Your task to perform on an android device: Show me productivity apps on the Play Store Image 0: 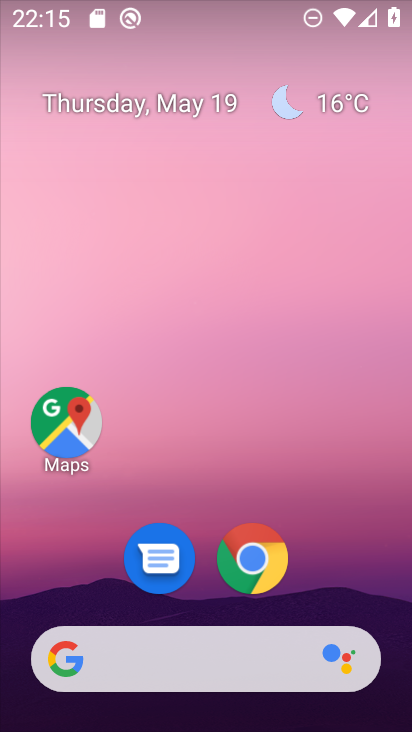
Step 0: drag from (192, 729) to (184, 154)
Your task to perform on an android device: Show me productivity apps on the Play Store Image 1: 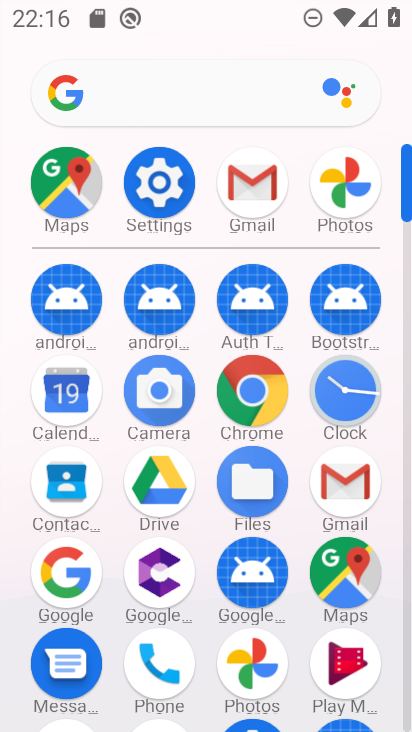
Step 1: drag from (216, 668) to (213, 363)
Your task to perform on an android device: Show me productivity apps on the Play Store Image 2: 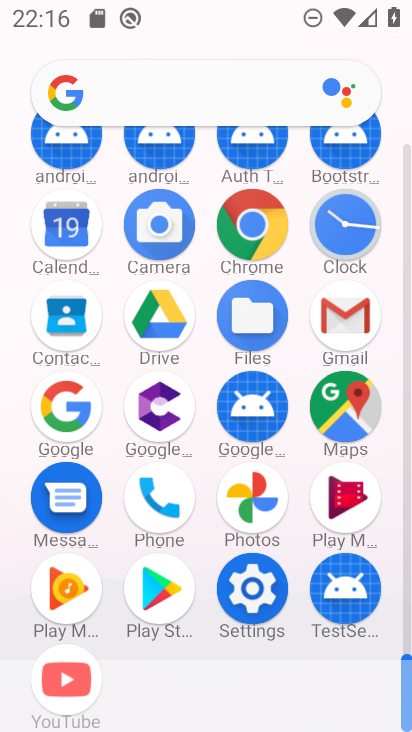
Step 2: click (154, 595)
Your task to perform on an android device: Show me productivity apps on the Play Store Image 3: 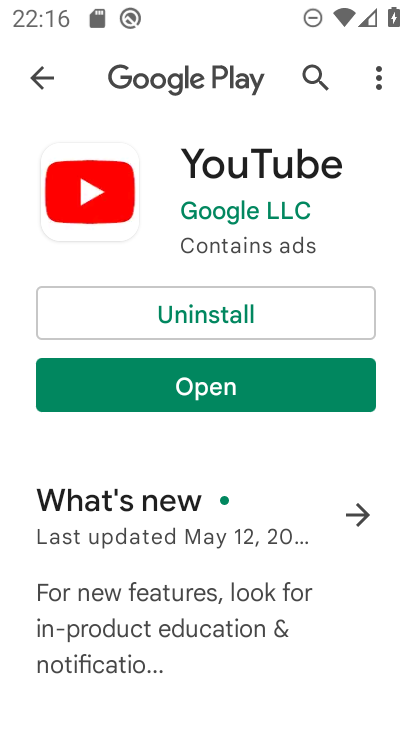
Step 3: click (40, 78)
Your task to perform on an android device: Show me productivity apps on the Play Store Image 4: 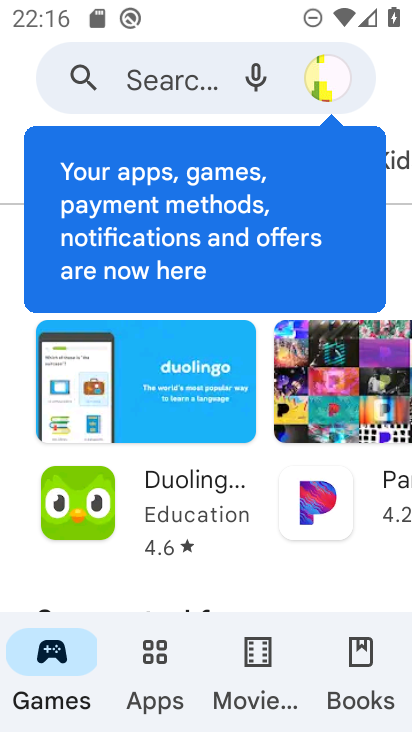
Step 4: click (151, 653)
Your task to perform on an android device: Show me productivity apps on the Play Store Image 5: 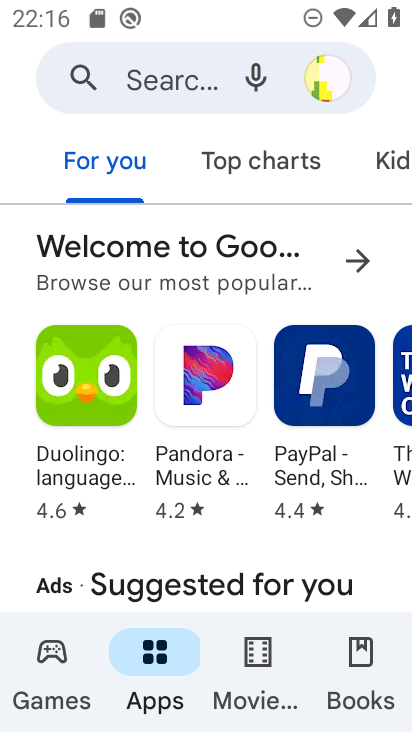
Step 5: drag from (320, 163) to (144, 154)
Your task to perform on an android device: Show me productivity apps on the Play Store Image 6: 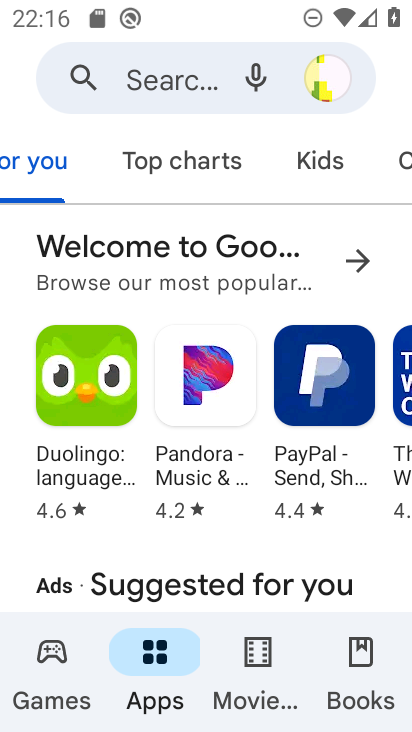
Step 6: drag from (363, 167) to (173, 157)
Your task to perform on an android device: Show me productivity apps on the Play Store Image 7: 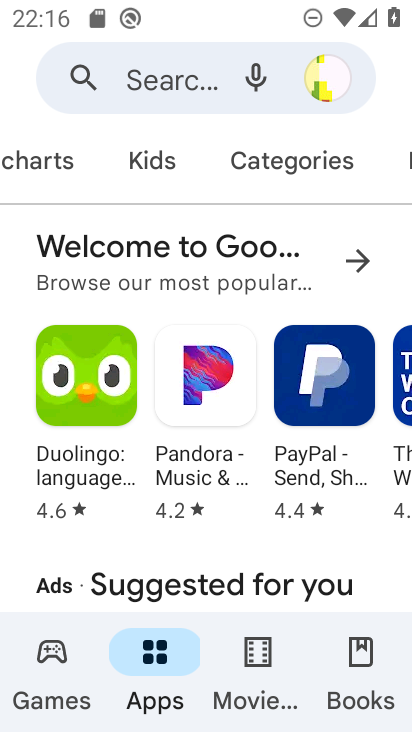
Step 7: click (304, 159)
Your task to perform on an android device: Show me productivity apps on the Play Store Image 8: 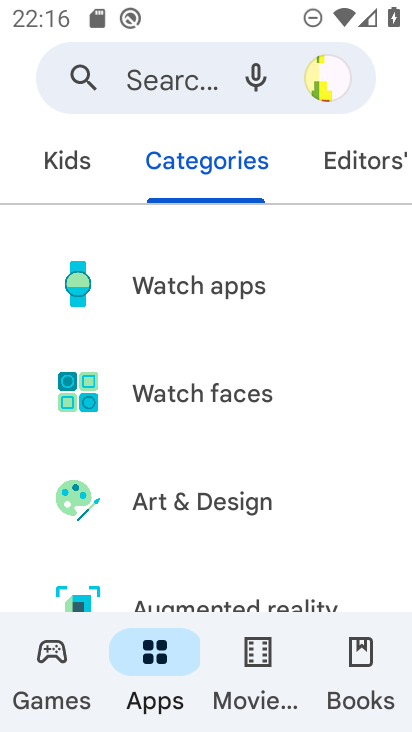
Step 8: drag from (249, 571) to (242, 253)
Your task to perform on an android device: Show me productivity apps on the Play Store Image 9: 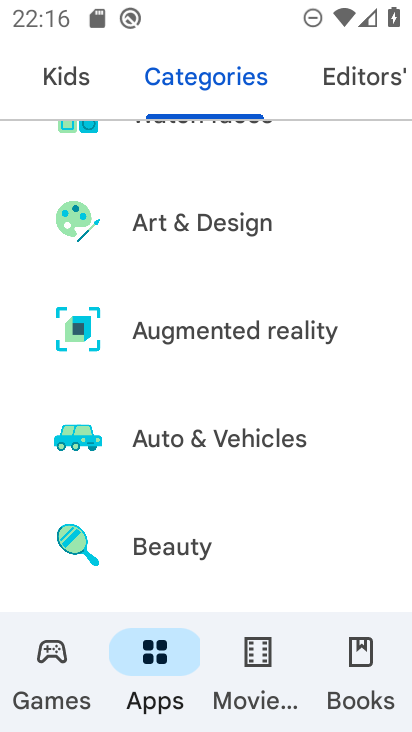
Step 9: drag from (220, 579) to (215, 206)
Your task to perform on an android device: Show me productivity apps on the Play Store Image 10: 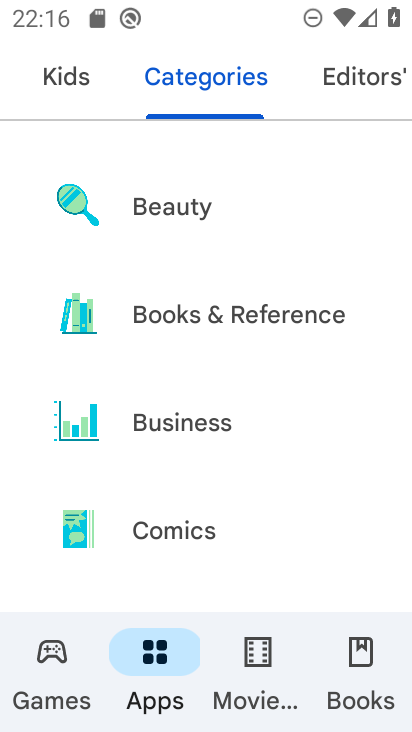
Step 10: drag from (241, 574) to (225, 266)
Your task to perform on an android device: Show me productivity apps on the Play Store Image 11: 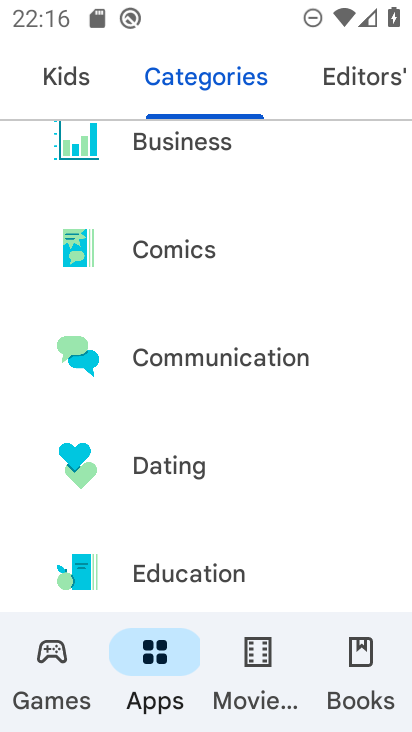
Step 11: drag from (255, 586) to (255, 284)
Your task to perform on an android device: Show me productivity apps on the Play Store Image 12: 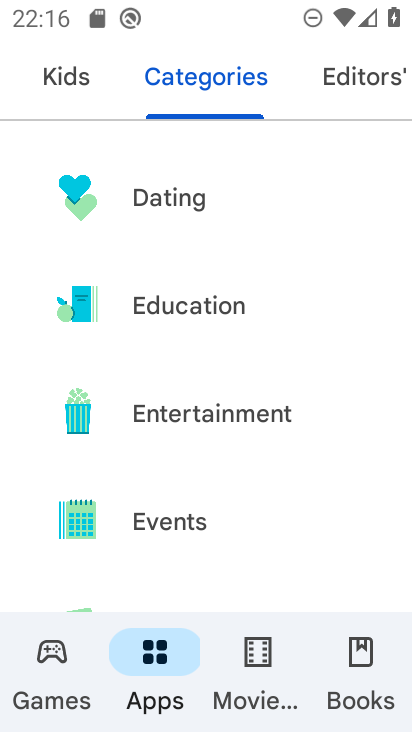
Step 12: drag from (273, 569) to (273, 200)
Your task to perform on an android device: Show me productivity apps on the Play Store Image 13: 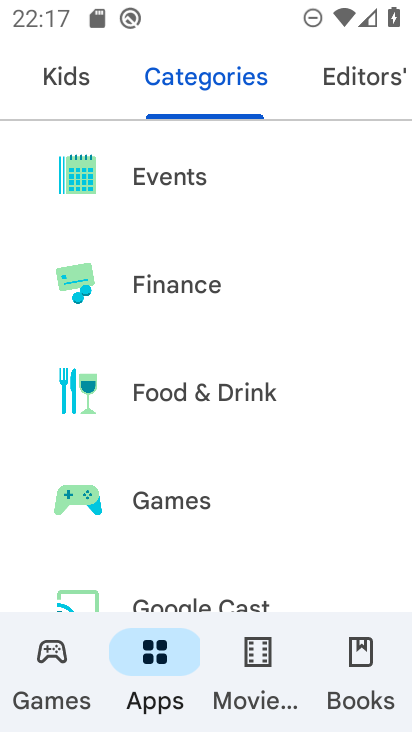
Step 13: drag from (265, 571) to (259, 237)
Your task to perform on an android device: Show me productivity apps on the Play Store Image 14: 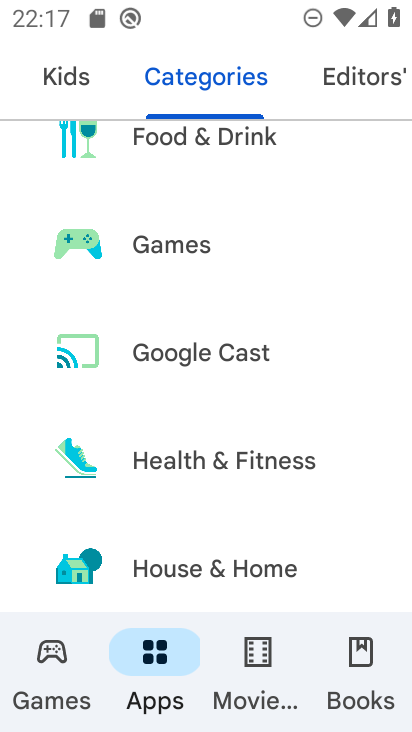
Step 14: drag from (255, 537) to (251, 224)
Your task to perform on an android device: Show me productivity apps on the Play Store Image 15: 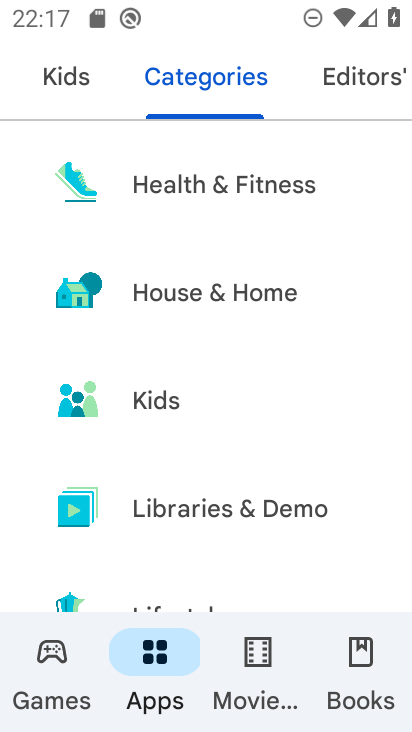
Step 15: drag from (234, 569) to (237, 192)
Your task to perform on an android device: Show me productivity apps on the Play Store Image 16: 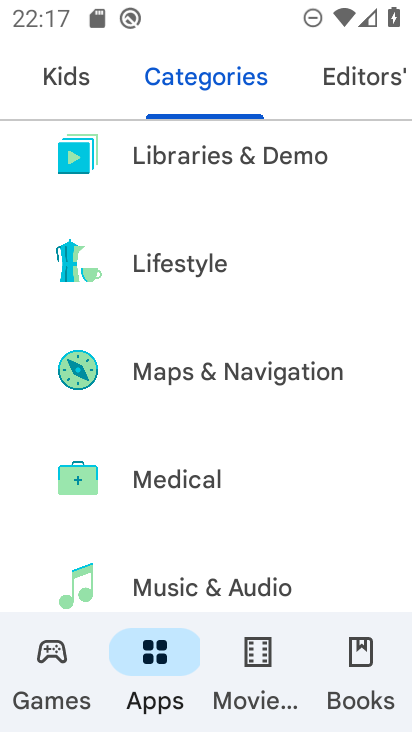
Step 16: drag from (234, 550) to (234, 141)
Your task to perform on an android device: Show me productivity apps on the Play Store Image 17: 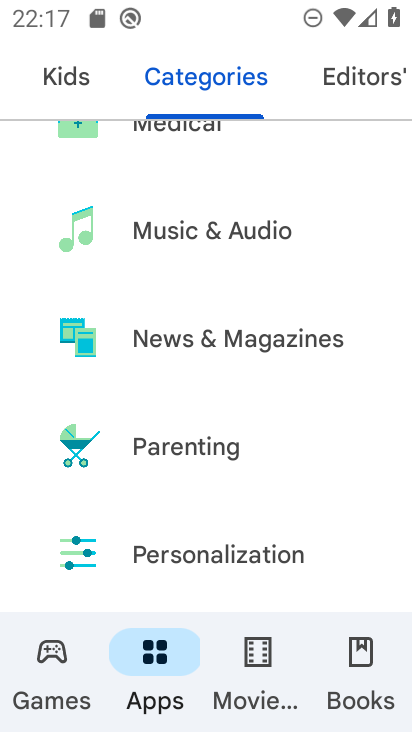
Step 17: drag from (231, 539) to (232, 150)
Your task to perform on an android device: Show me productivity apps on the Play Store Image 18: 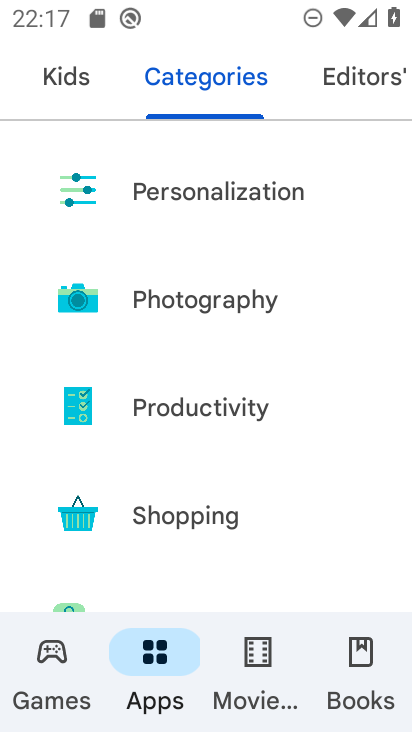
Step 18: click (216, 405)
Your task to perform on an android device: Show me productivity apps on the Play Store Image 19: 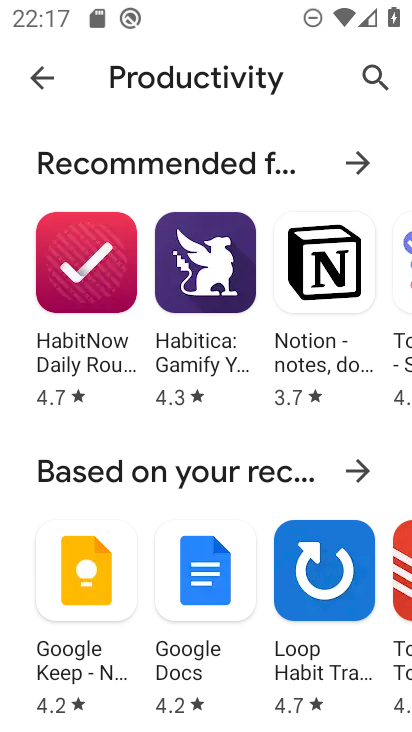
Step 19: task complete